Your task to perform on an android device: turn on the 24-hour format for clock Image 0: 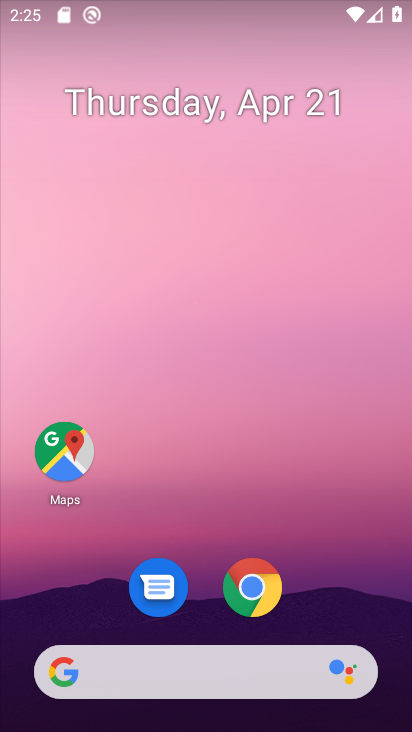
Step 0: drag from (364, 561) to (360, 86)
Your task to perform on an android device: turn on the 24-hour format for clock Image 1: 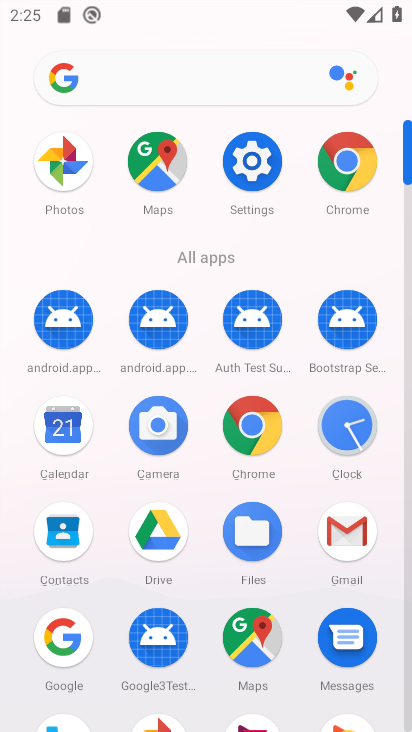
Step 1: click (339, 440)
Your task to perform on an android device: turn on the 24-hour format for clock Image 2: 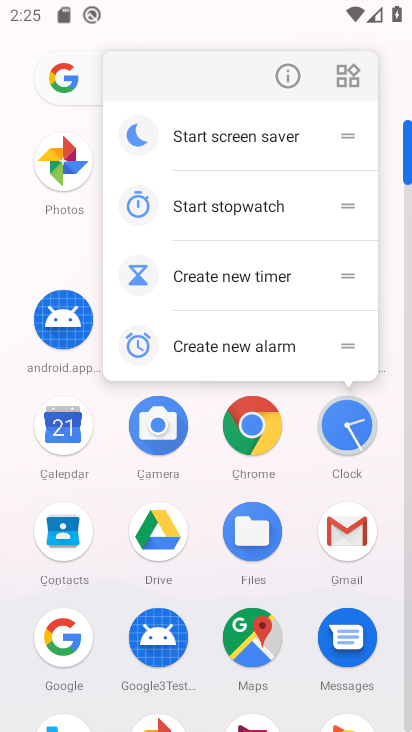
Step 2: click (340, 440)
Your task to perform on an android device: turn on the 24-hour format for clock Image 3: 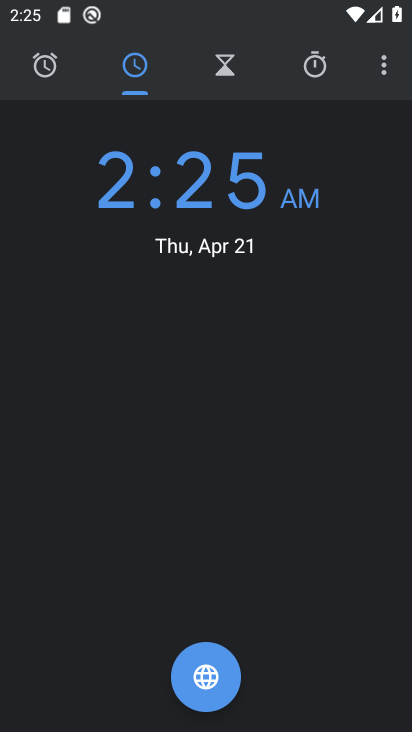
Step 3: click (379, 68)
Your task to perform on an android device: turn on the 24-hour format for clock Image 4: 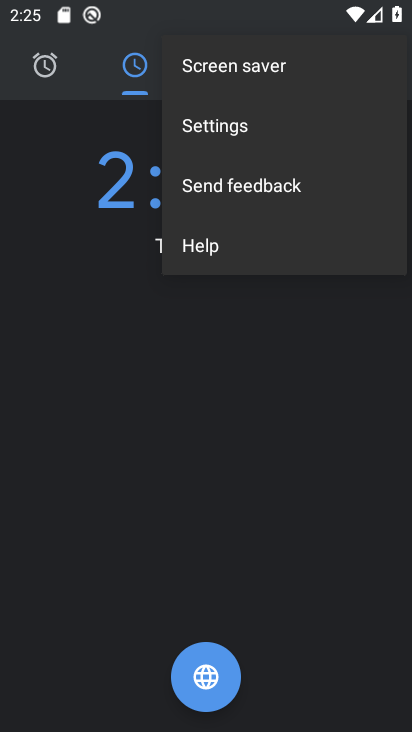
Step 4: click (309, 123)
Your task to perform on an android device: turn on the 24-hour format for clock Image 5: 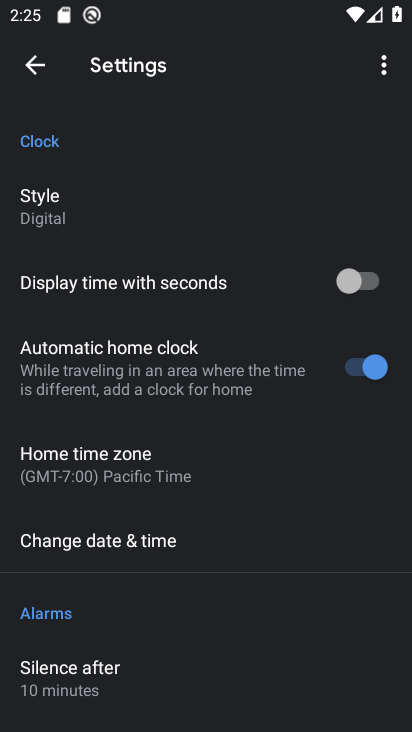
Step 5: drag from (309, 505) to (335, 372)
Your task to perform on an android device: turn on the 24-hour format for clock Image 6: 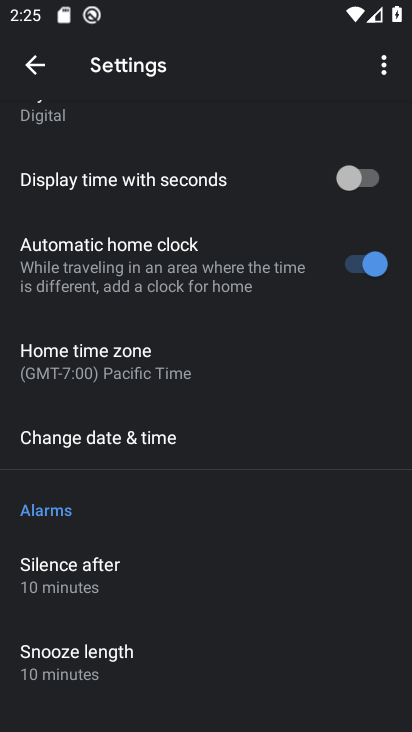
Step 6: drag from (365, 490) to (353, 393)
Your task to perform on an android device: turn on the 24-hour format for clock Image 7: 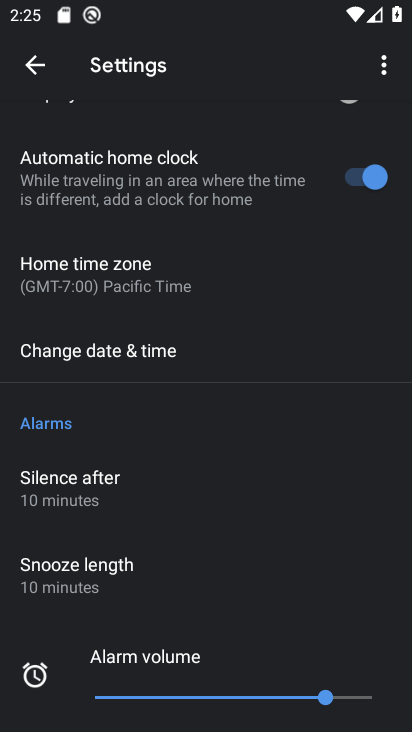
Step 7: drag from (362, 491) to (339, 392)
Your task to perform on an android device: turn on the 24-hour format for clock Image 8: 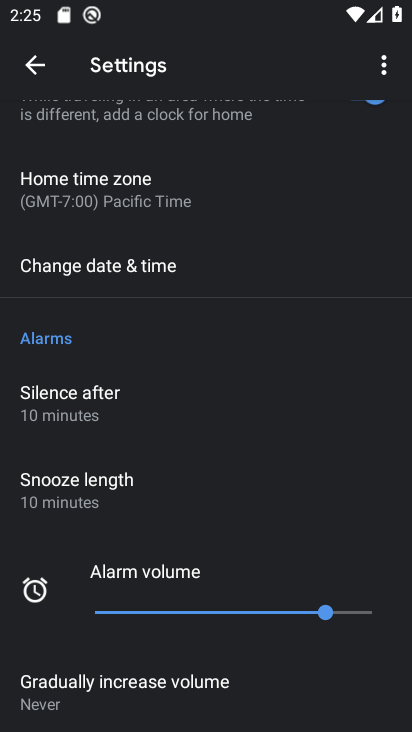
Step 8: drag from (328, 477) to (323, 353)
Your task to perform on an android device: turn on the 24-hour format for clock Image 9: 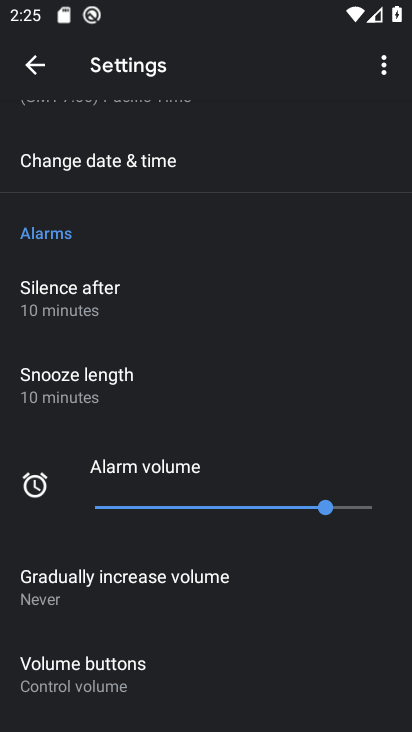
Step 9: drag from (351, 425) to (348, 305)
Your task to perform on an android device: turn on the 24-hour format for clock Image 10: 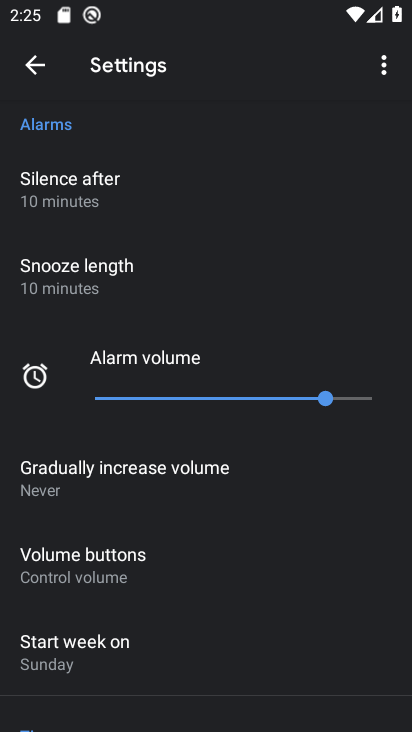
Step 10: drag from (340, 527) to (325, 392)
Your task to perform on an android device: turn on the 24-hour format for clock Image 11: 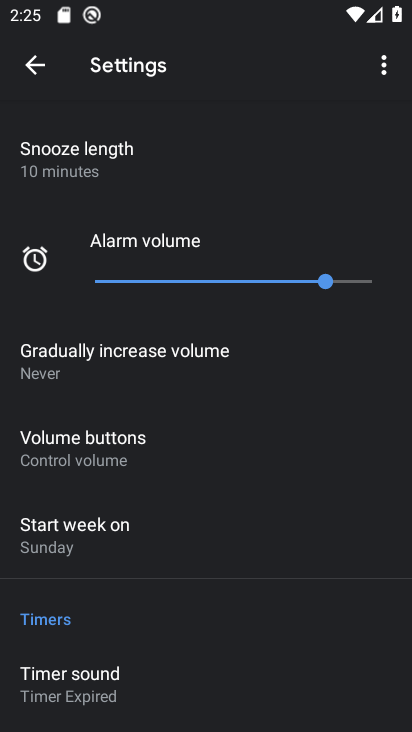
Step 11: drag from (341, 564) to (331, 423)
Your task to perform on an android device: turn on the 24-hour format for clock Image 12: 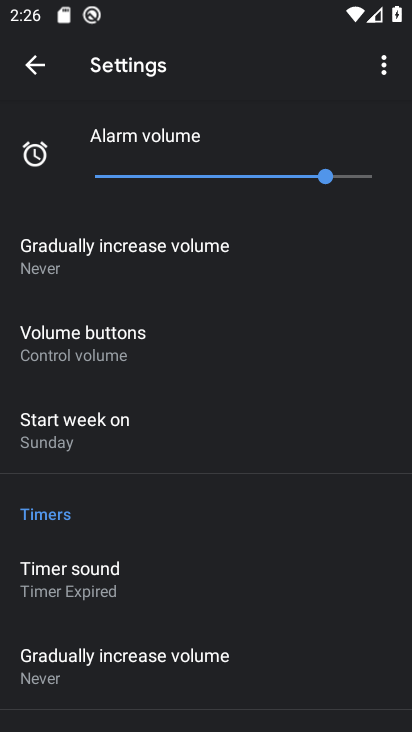
Step 12: drag from (365, 380) to (351, 493)
Your task to perform on an android device: turn on the 24-hour format for clock Image 13: 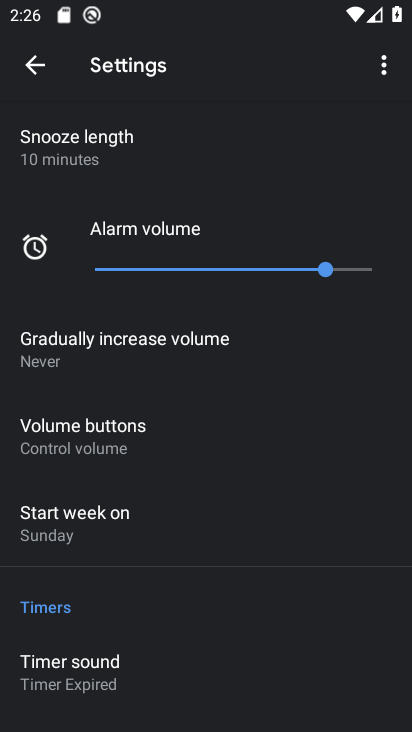
Step 13: drag from (366, 421) to (373, 510)
Your task to perform on an android device: turn on the 24-hour format for clock Image 14: 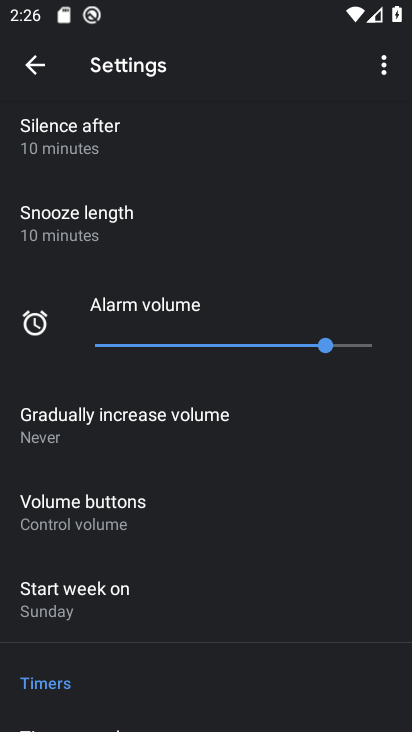
Step 14: drag from (372, 464) to (378, 555)
Your task to perform on an android device: turn on the 24-hour format for clock Image 15: 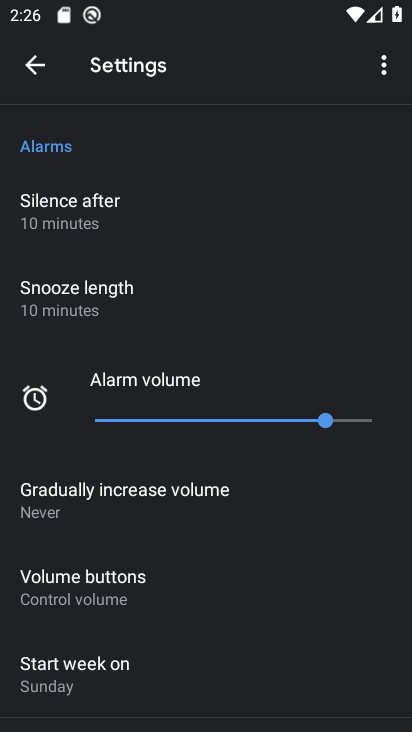
Step 15: drag from (396, 472) to (393, 561)
Your task to perform on an android device: turn on the 24-hour format for clock Image 16: 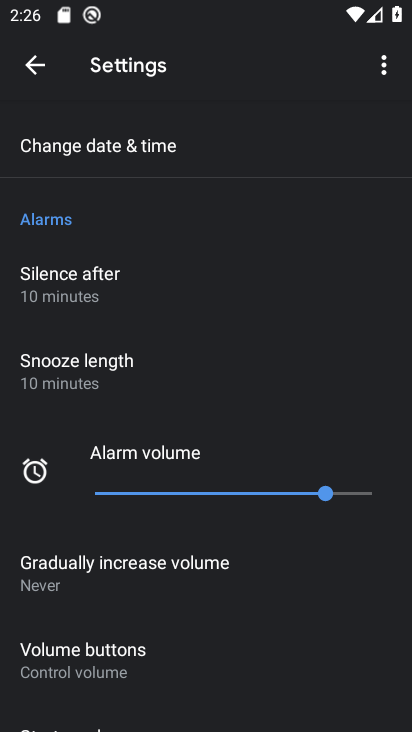
Step 16: drag from (383, 454) to (390, 570)
Your task to perform on an android device: turn on the 24-hour format for clock Image 17: 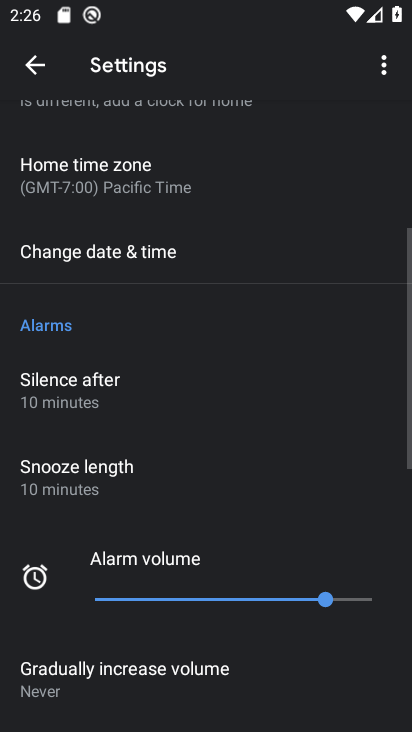
Step 17: drag from (337, 387) to (333, 504)
Your task to perform on an android device: turn on the 24-hour format for clock Image 18: 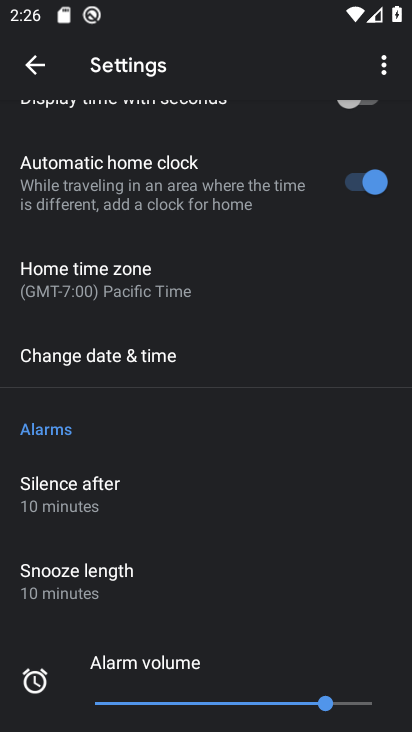
Step 18: drag from (336, 454) to (336, 572)
Your task to perform on an android device: turn on the 24-hour format for clock Image 19: 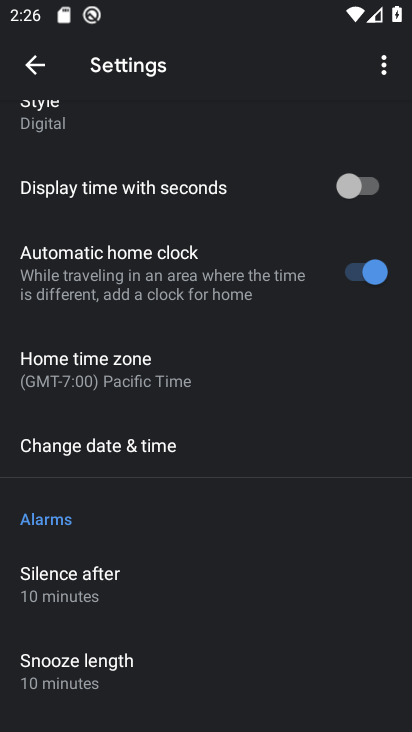
Step 19: click (309, 450)
Your task to perform on an android device: turn on the 24-hour format for clock Image 20: 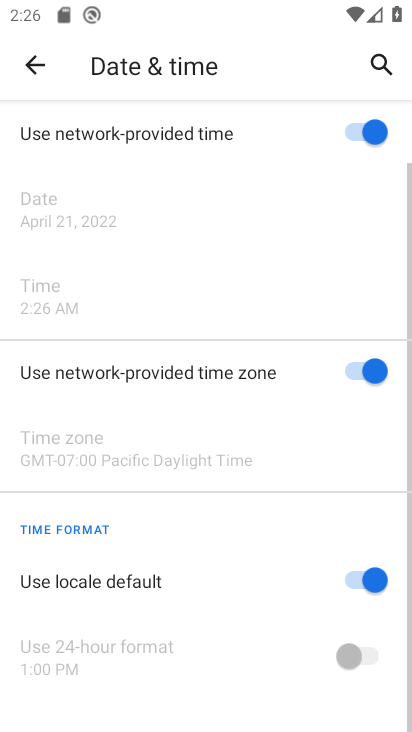
Step 20: drag from (300, 543) to (286, 396)
Your task to perform on an android device: turn on the 24-hour format for clock Image 21: 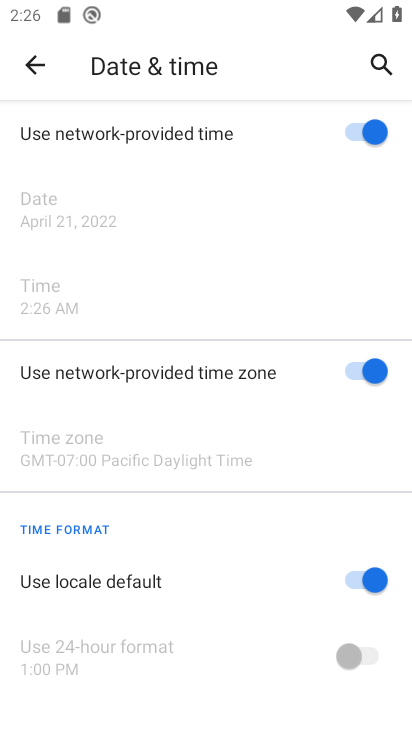
Step 21: click (378, 579)
Your task to perform on an android device: turn on the 24-hour format for clock Image 22: 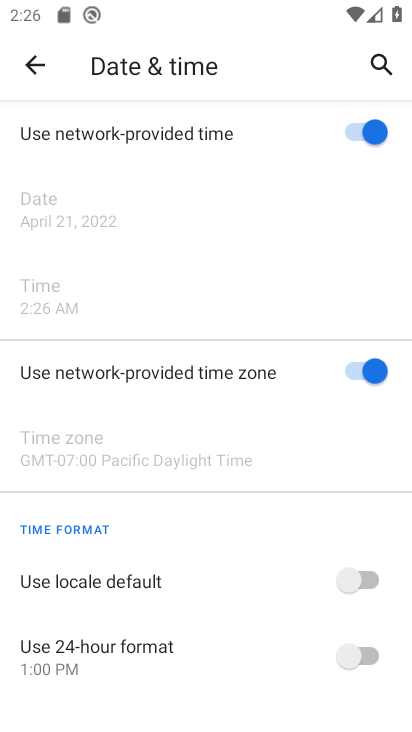
Step 22: click (358, 656)
Your task to perform on an android device: turn on the 24-hour format for clock Image 23: 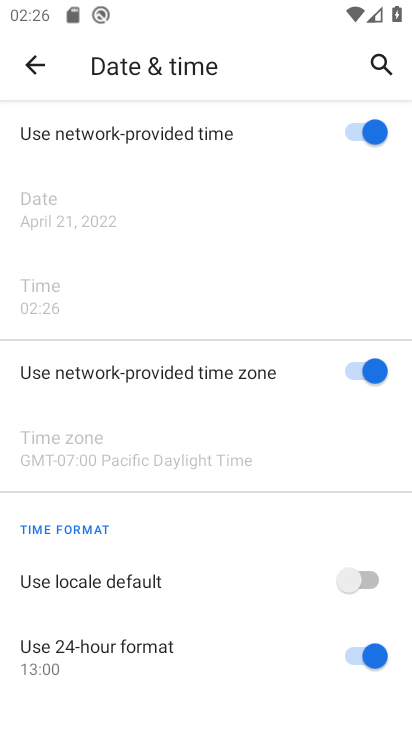
Step 23: task complete